Your task to perform on an android device: refresh tabs in the chrome app Image 0: 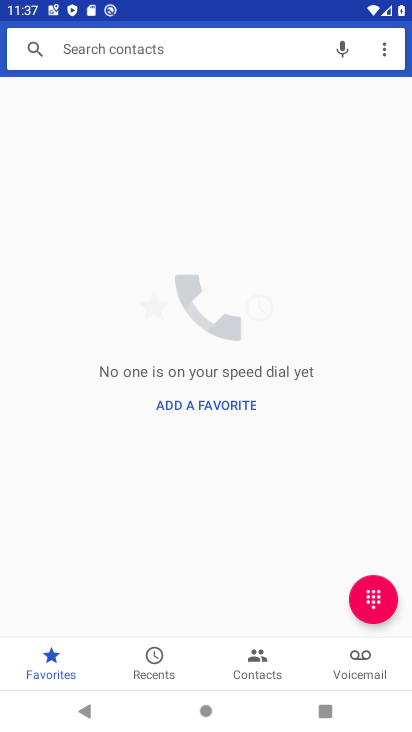
Step 0: press home button
Your task to perform on an android device: refresh tabs in the chrome app Image 1: 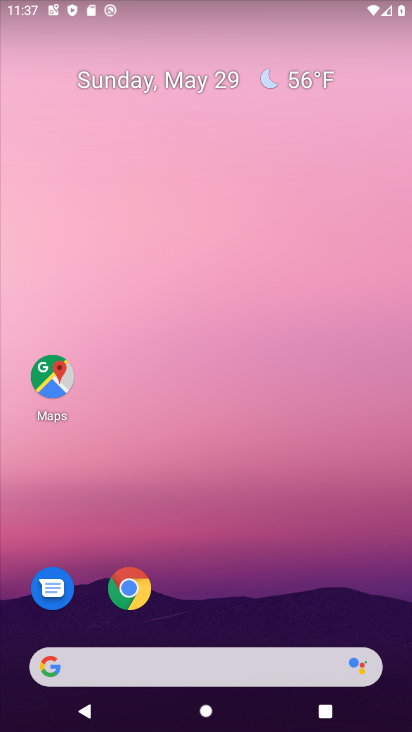
Step 1: drag from (305, 486) to (293, 4)
Your task to perform on an android device: refresh tabs in the chrome app Image 2: 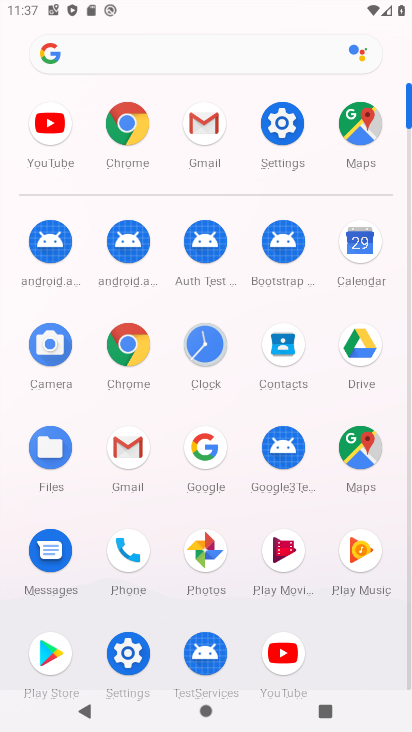
Step 2: click (134, 105)
Your task to perform on an android device: refresh tabs in the chrome app Image 3: 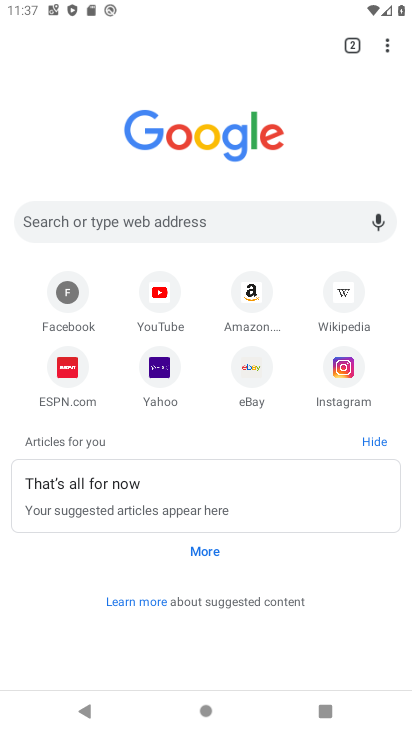
Step 3: click (390, 45)
Your task to perform on an android device: refresh tabs in the chrome app Image 4: 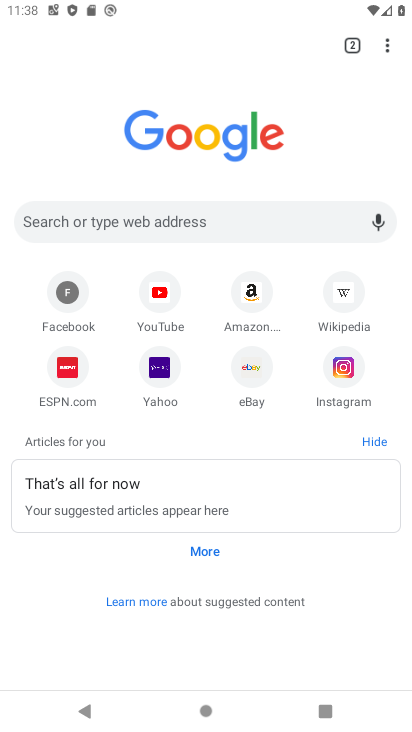
Step 4: task complete